Your task to perform on an android device: see sites visited before in the chrome app Image 0: 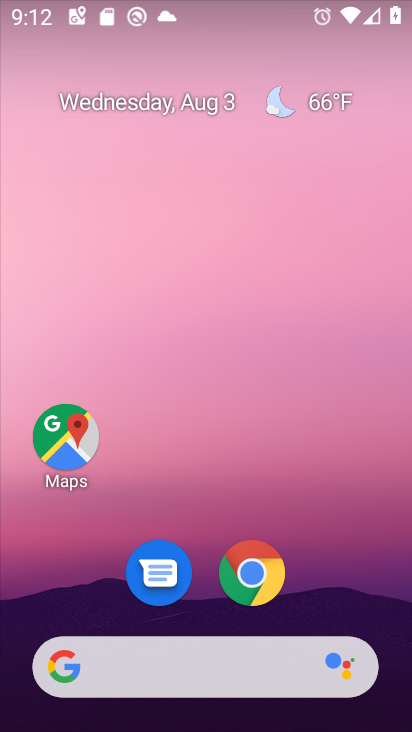
Step 0: click (253, 572)
Your task to perform on an android device: see sites visited before in the chrome app Image 1: 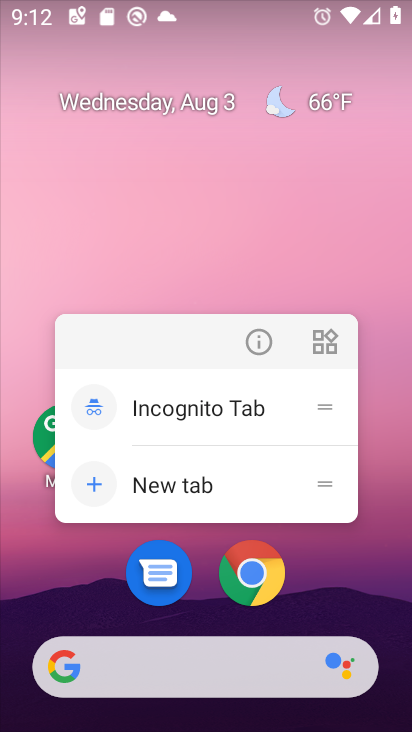
Step 1: click (253, 572)
Your task to perform on an android device: see sites visited before in the chrome app Image 2: 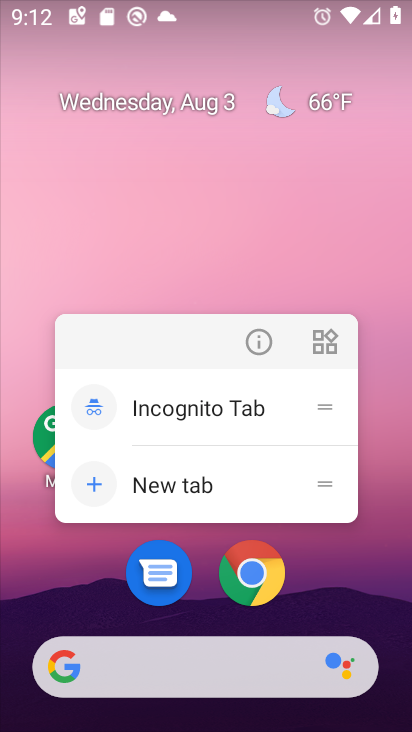
Step 2: click (253, 572)
Your task to perform on an android device: see sites visited before in the chrome app Image 3: 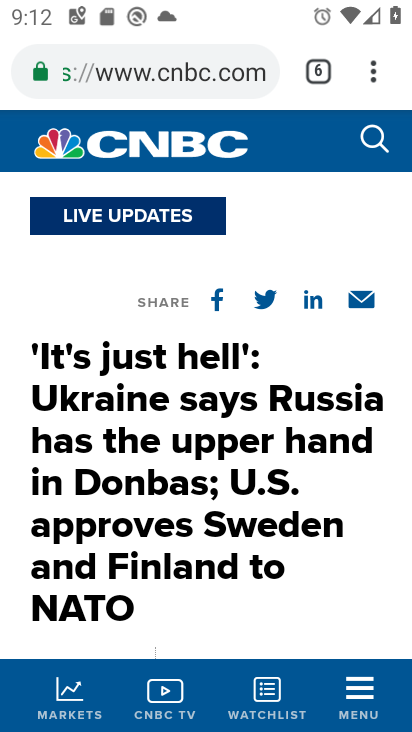
Step 3: click (375, 70)
Your task to perform on an android device: see sites visited before in the chrome app Image 4: 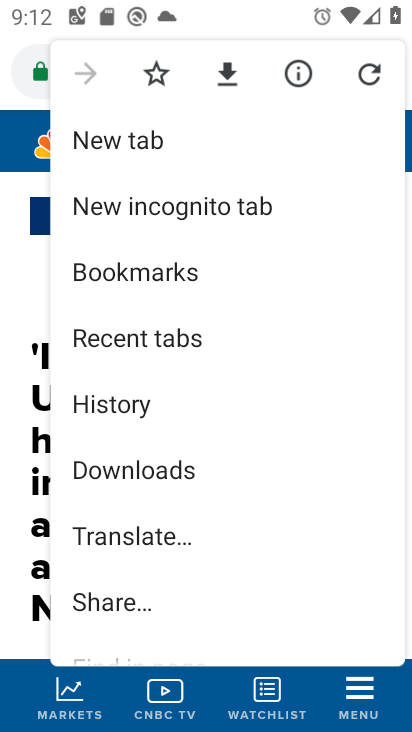
Step 4: drag from (243, 532) to (248, 234)
Your task to perform on an android device: see sites visited before in the chrome app Image 5: 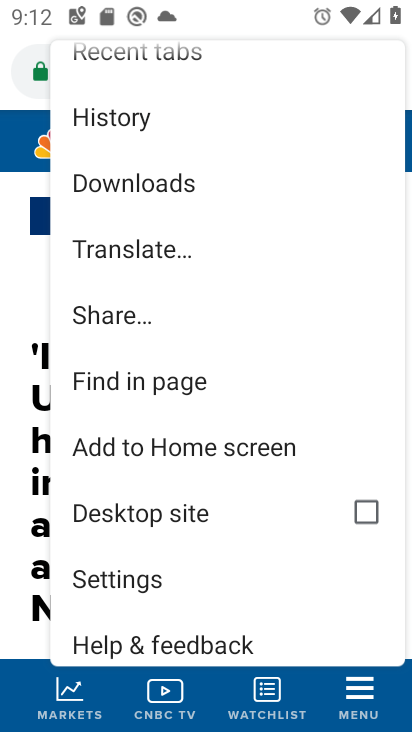
Step 5: click (107, 125)
Your task to perform on an android device: see sites visited before in the chrome app Image 6: 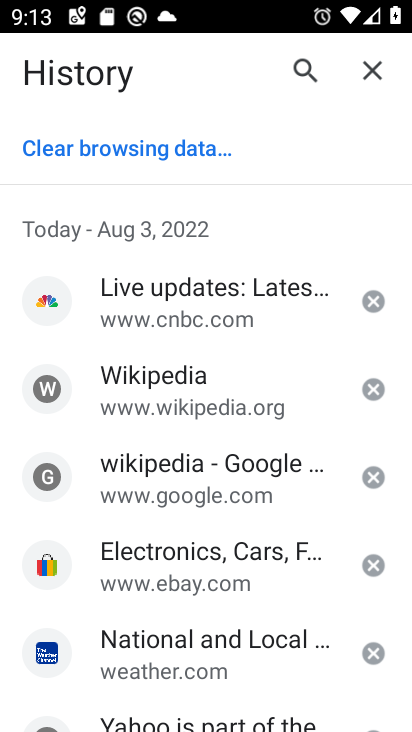
Step 6: task complete